Your task to perform on an android device: turn on javascript in the chrome app Image 0: 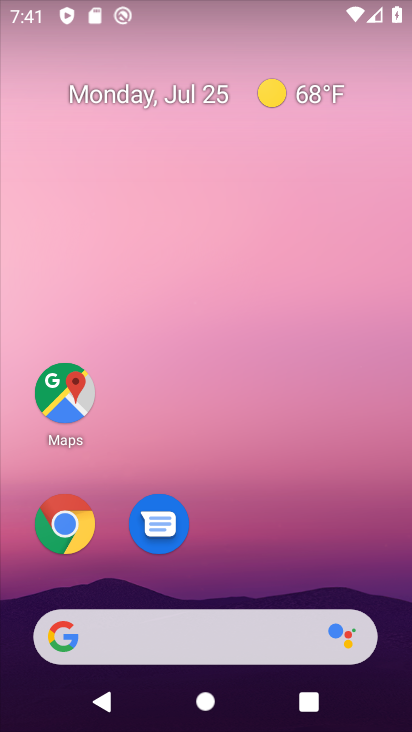
Step 0: click (72, 521)
Your task to perform on an android device: turn on javascript in the chrome app Image 1: 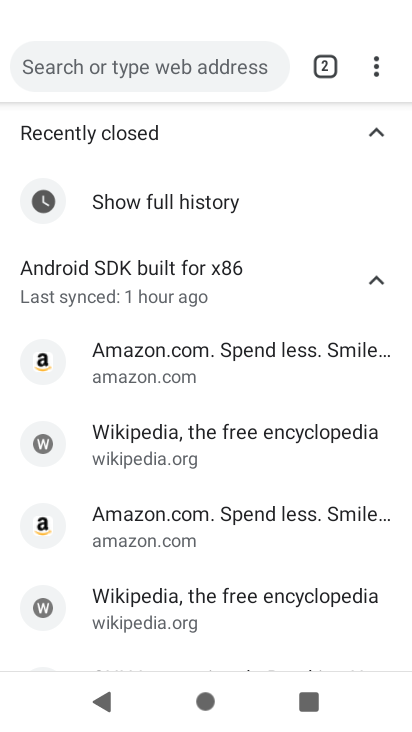
Step 1: click (378, 60)
Your task to perform on an android device: turn on javascript in the chrome app Image 2: 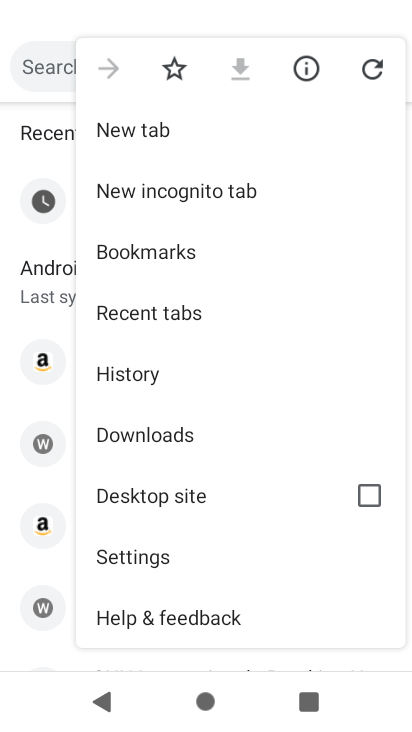
Step 2: click (170, 543)
Your task to perform on an android device: turn on javascript in the chrome app Image 3: 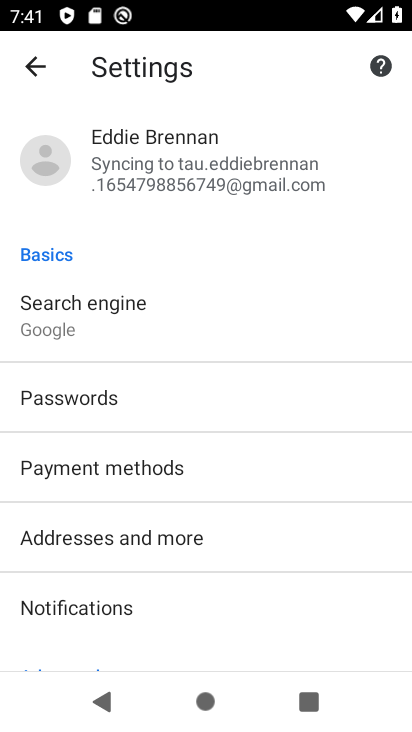
Step 3: drag from (170, 543) to (234, 296)
Your task to perform on an android device: turn on javascript in the chrome app Image 4: 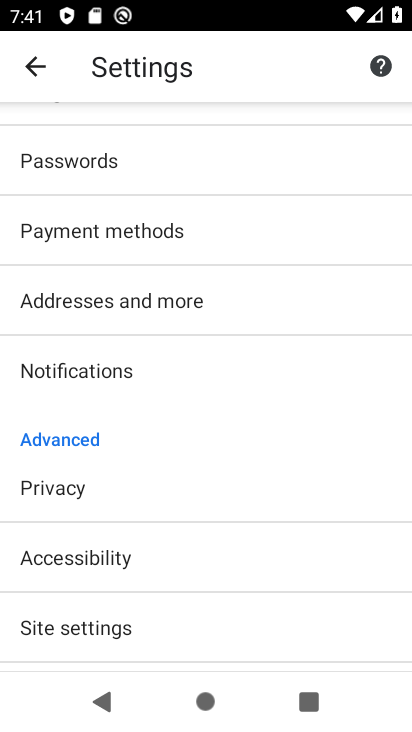
Step 4: click (108, 626)
Your task to perform on an android device: turn on javascript in the chrome app Image 5: 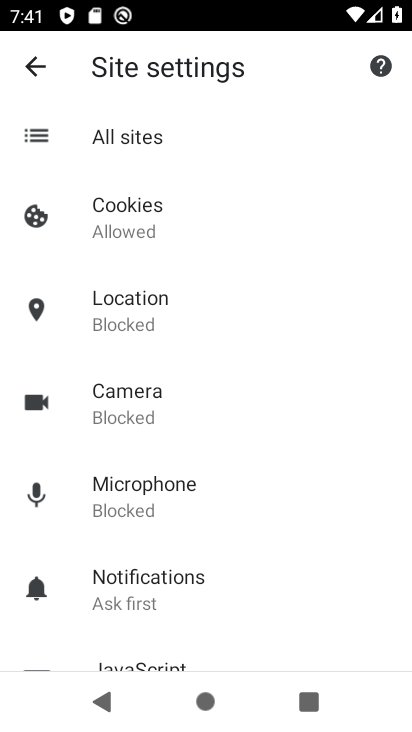
Step 5: drag from (108, 626) to (117, 474)
Your task to perform on an android device: turn on javascript in the chrome app Image 6: 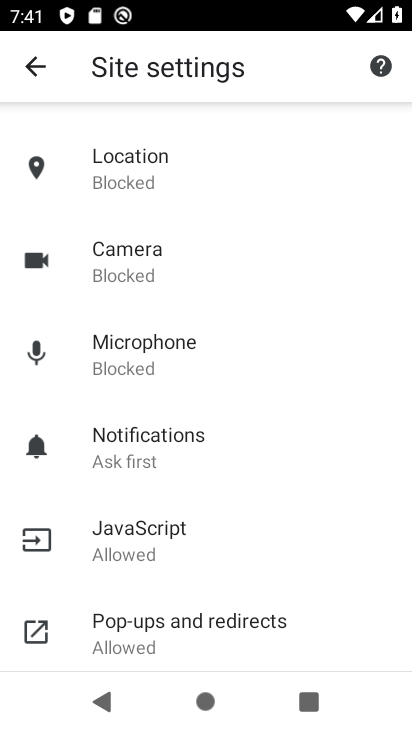
Step 6: click (145, 534)
Your task to perform on an android device: turn on javascript in the chrome app Image 7: 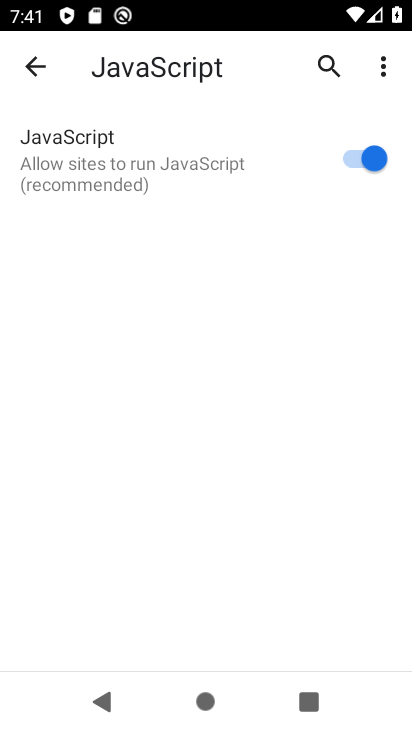
Step 7: task complete